Your task to perform on an android device: Open accessibility settings Image 0: 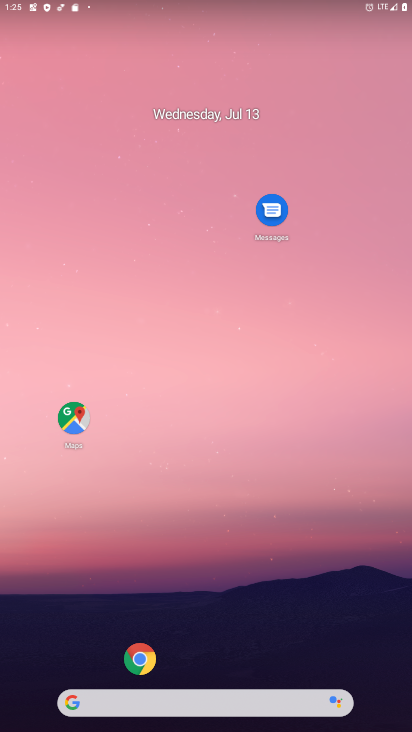
Step 0: drag from (55, 594) to (281, 12)
Your task to perform on an android device: Open accessibility settings Image 1: 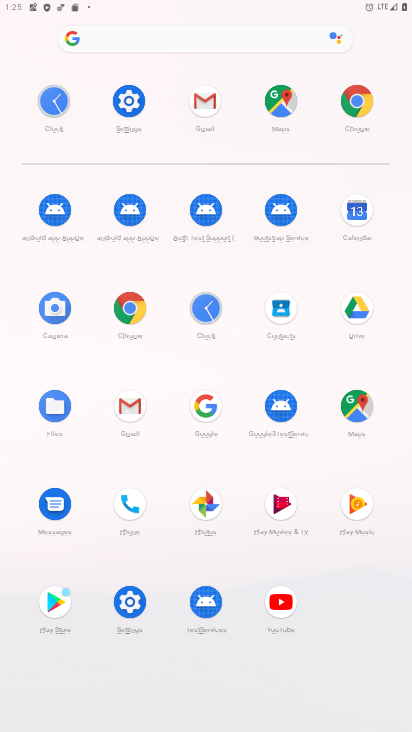
Step 1: click (124, 597)
Your task to perform on an android device: Open accessibility settings Image 2: 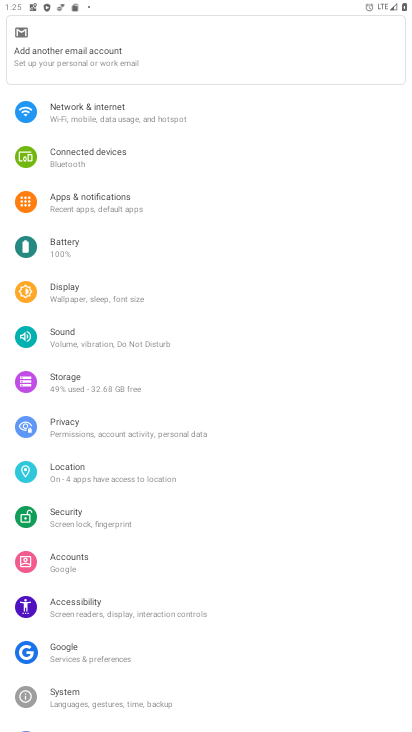
Step 2: click (65, 593)
Your task to perform on an android device: Open accessibility settings Image 3: 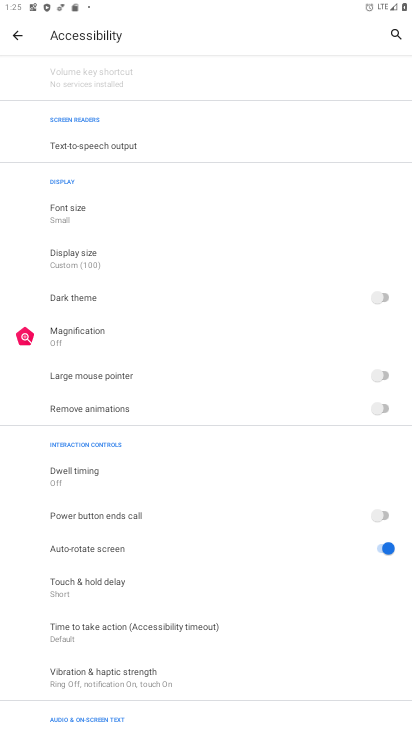
Step 3: task complete